Your task to perform on an android device: turn on data saver in the chrome app Image 0: 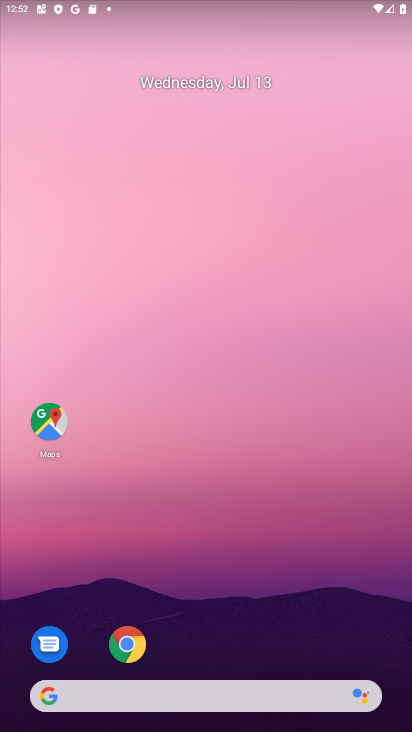
Step 0: click (130, 648)
Your task to perform on an android device: turn on data saver in the chrome app Image 1: 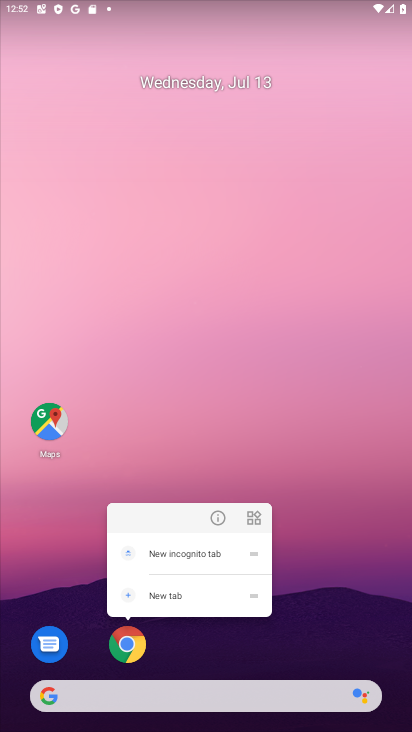
Step 1: click (132, 648)
Your task to perform on an android device: turn on data saver in the chrome app Image 2: 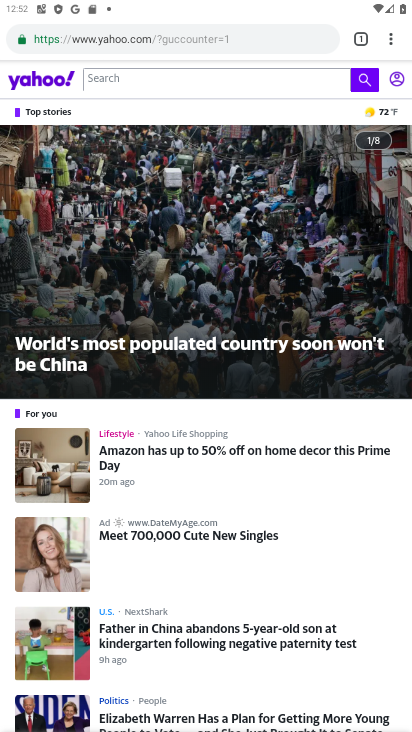
Step 2: click (399, 34)
Your task to perform on an android device: turn on data saver in the chrome app Image 3: 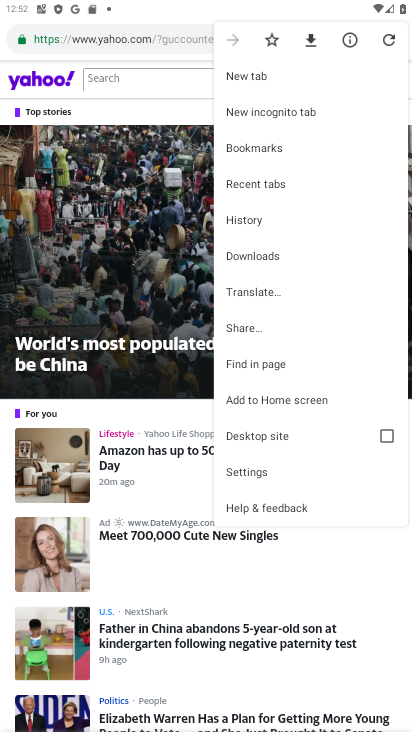
Step 3: click (278, 473)
Your task to perform on an android device: turn on data saver in the chrome app Image 4: 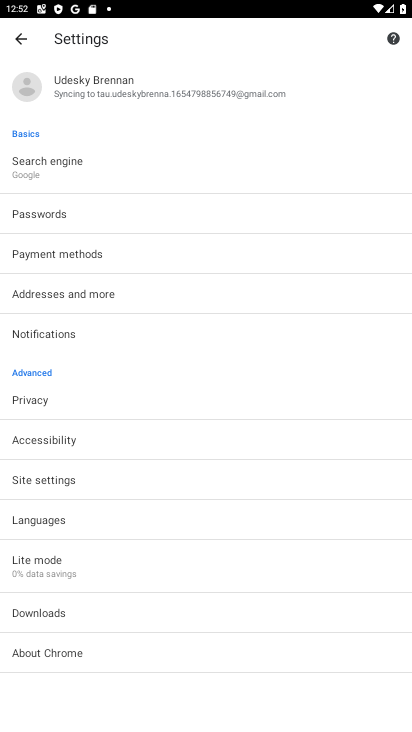
Step 4: click (188, 571)
Your task to perform on an android device: turn on data saver in the chrome app Image 5: 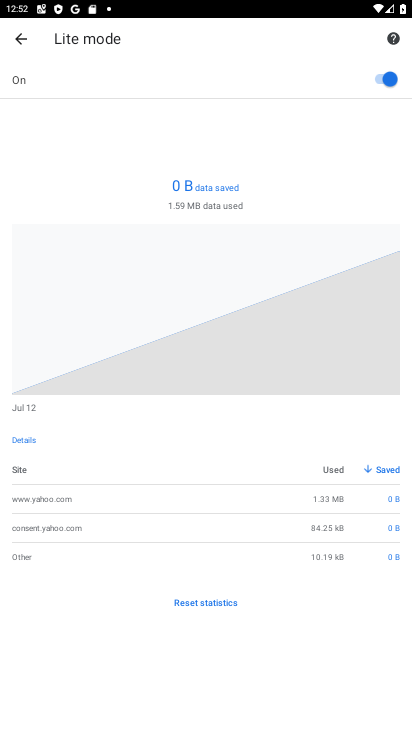
Step 5: task complete